Your task to perform on an android device: star an email in the gmail app Image 0: 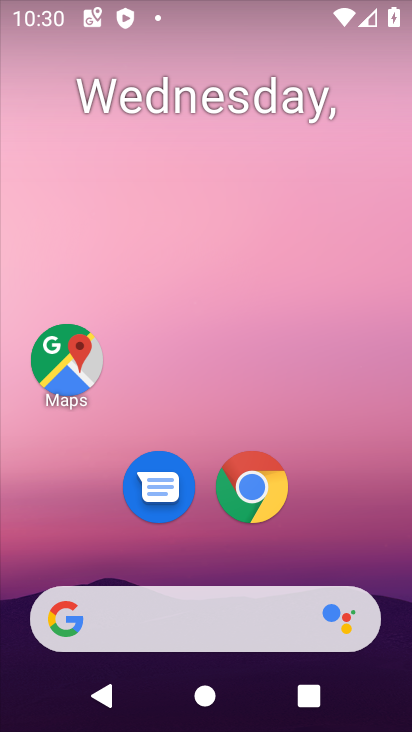
Step 0: drag from (280, 581) to (372, 40)
Your task to perform on an android device: star an email in the gmail app Image 1: 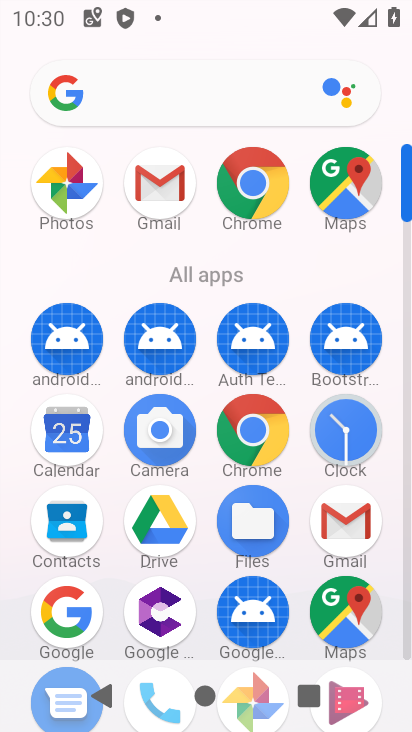
Step 1: click (337, 525)
Your task to perform on an android device: star an email in the gmail app Image 2: 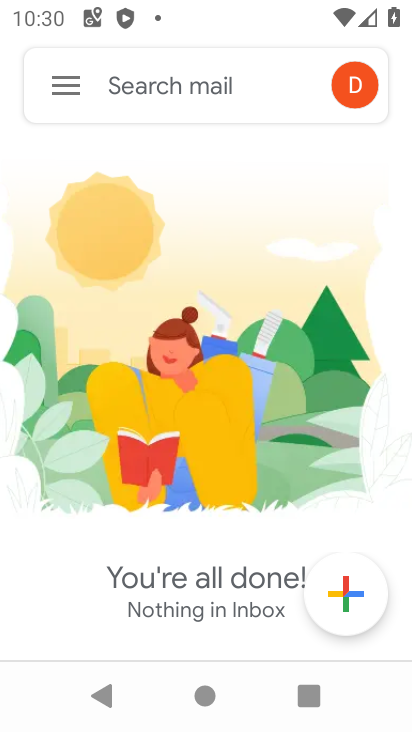
Step 2: click (72, 82)
Your task to perform on an android device: star an email in the gmail app Image 3: 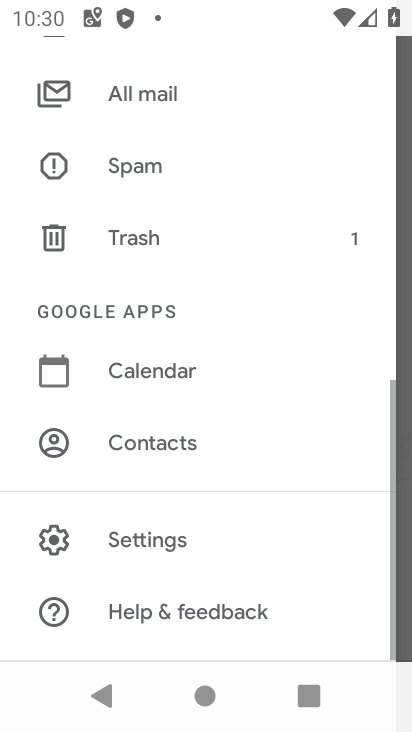
Step 3: drag from (159, 192) to (281, 639)
Your task to perform on an android device: star an email in the gmail app Image 4: 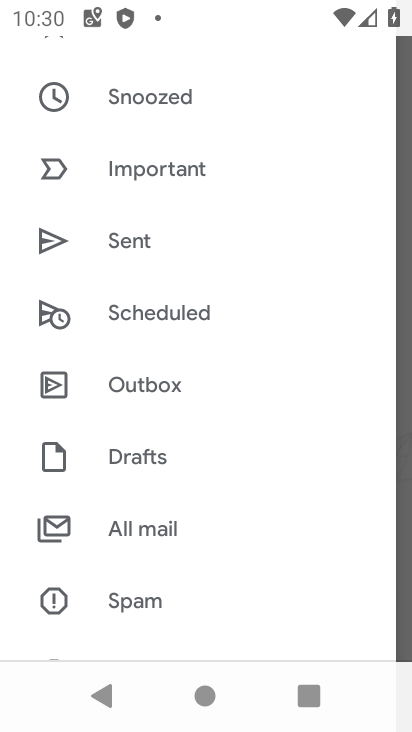
Step 4: drag from (227, 253) to (192, 588)
Your task to perform on an android device: star an email in the gmail app Image 5: 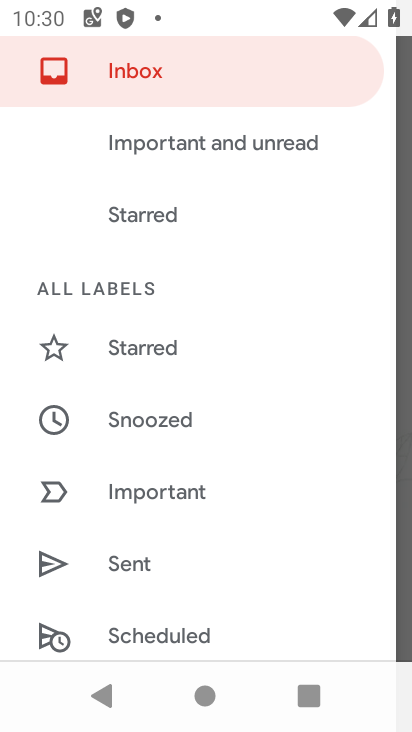
Step 5: click (172, 357)
Your task to perform on an android device: star an email in the gmail app Image 6: 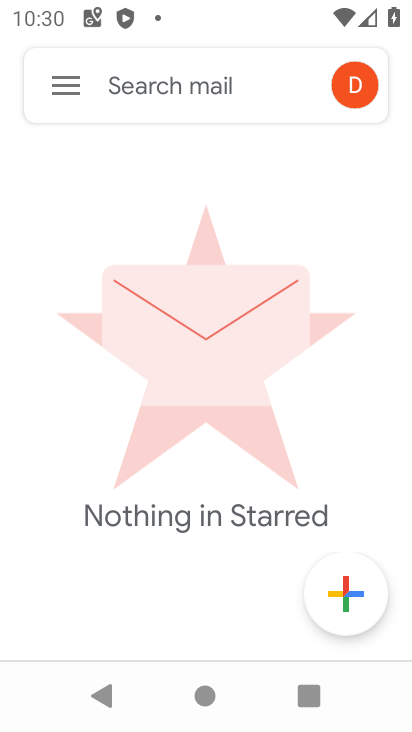
Step 6: task complete